Your task to perform on an android device: turn on showing notifications on the lock screen Image 0: 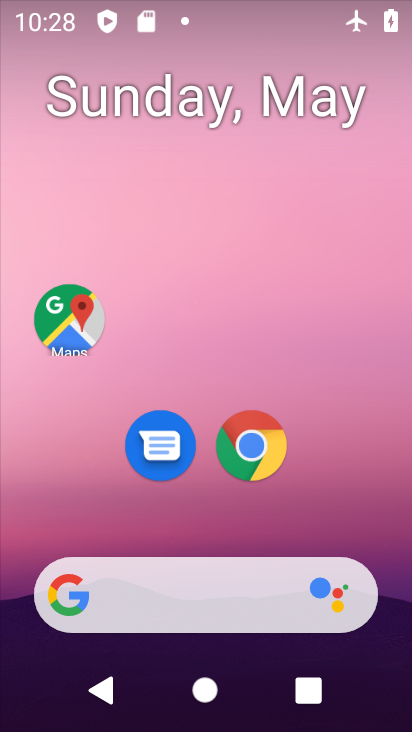
Step 0: drag from (184, 507) to (216, 200)
Your task to perform on an android device: turn on showing notifications on the lock screen Image 1: 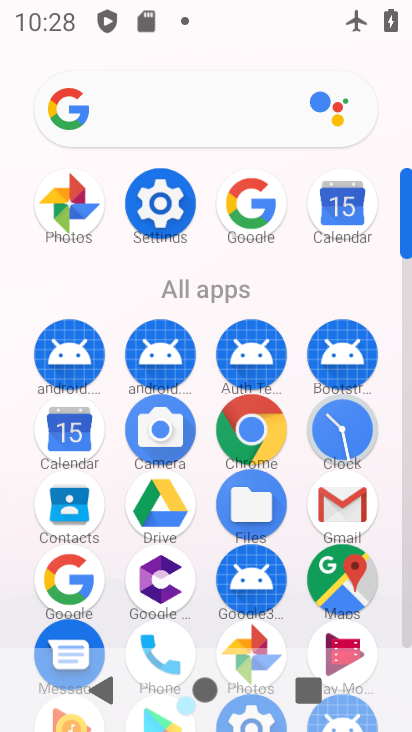
Step 1: click (158, 205)
Your task to perform on an android device: turn on showing notifications on the lock screen Image 2: 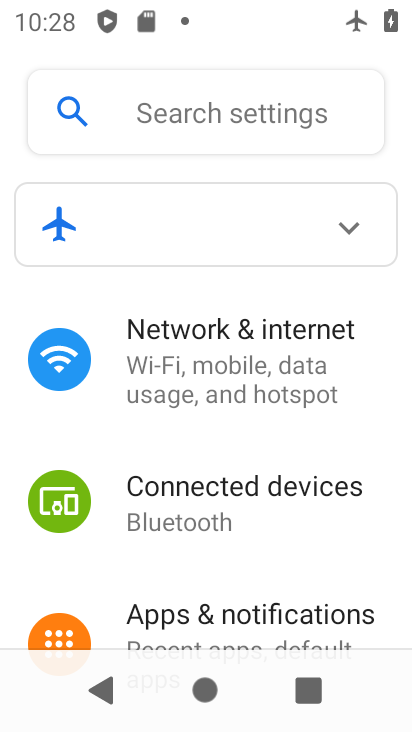
Step 2: click (244, 622)
Your task to perform on an android device: turn on showing notifications on the lock screen Image 3: 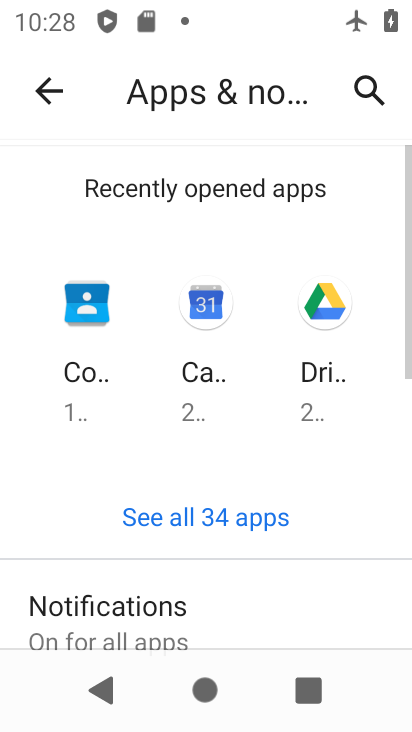
Step 3: drag from (244, 612) to (306, 255)
Your task to perform on an android device: turn on showing notifications on the lock screen Image 4: 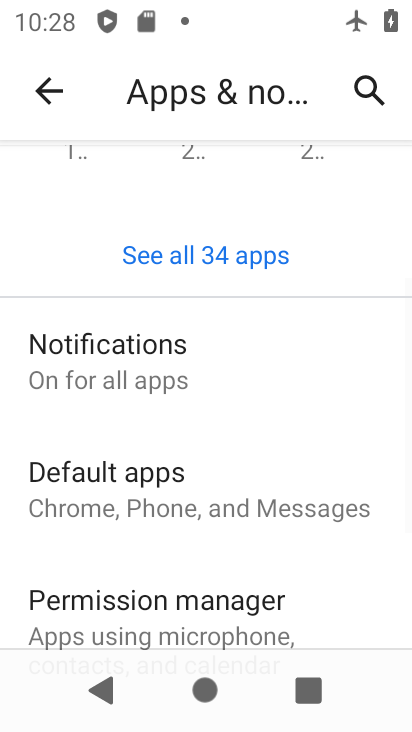
Step 4: drag from (233, 566) to (289, 265)
Your task to perform on an android device: turn on showing notifications on the lock screen Image 5: 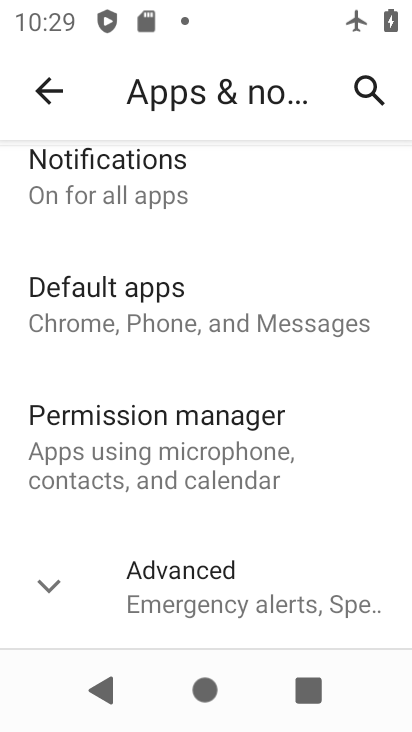
Step 5: click (110, 153)
Your task to perform on an android device: turn on showing notifications on the lock screen Image 6: 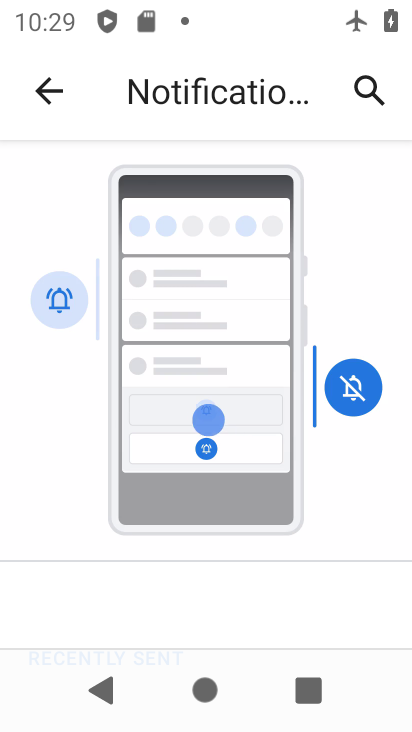
Step 6: drag from (190, 570) to (270, 252)
Your task to perform on an android device: turn on showing notifications on the lock screen Image 7: 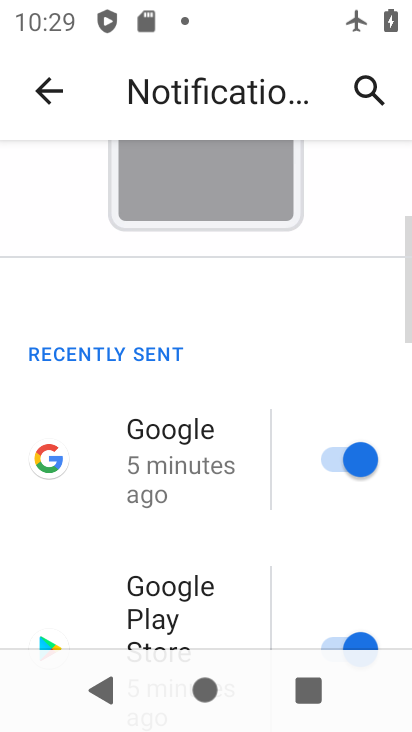
Step 7: drag from (242, 546) to (257, 260)
Your task to perform on an android device: turn on showing notifications on the lock screen Image 8: 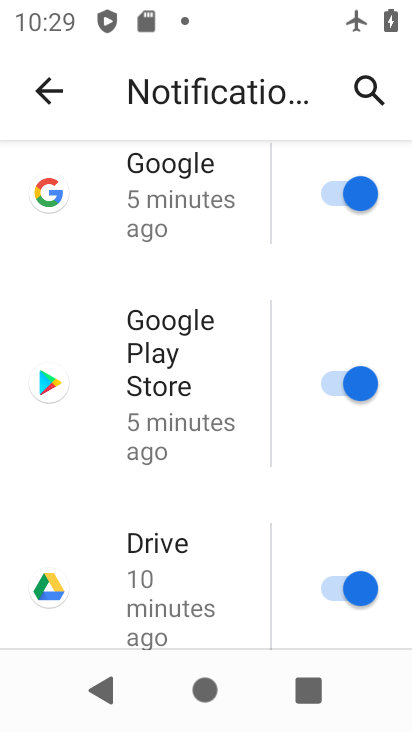
Step 8: drag from (244, 549) to (309, 222)
Your task to perform on an android device: turn on showing notifications on the lock screen Image 9: 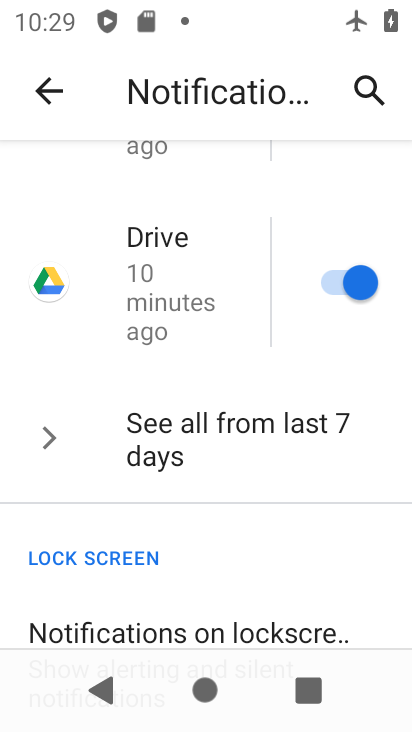
Step 9: drag from (233, 556) to (301, 285)
Your task to perform on an android device: turn on showing notifications on the lock screen Image 10: 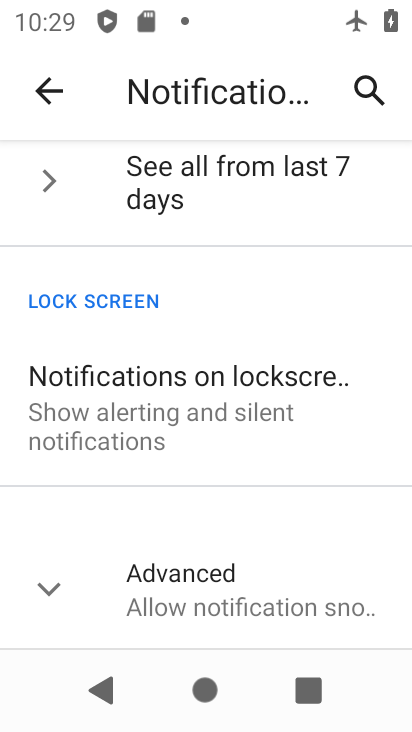
Step 10: click (154, 406)
Your task to perform on an android device: turn on showing notifications on the lock screen Image 11: 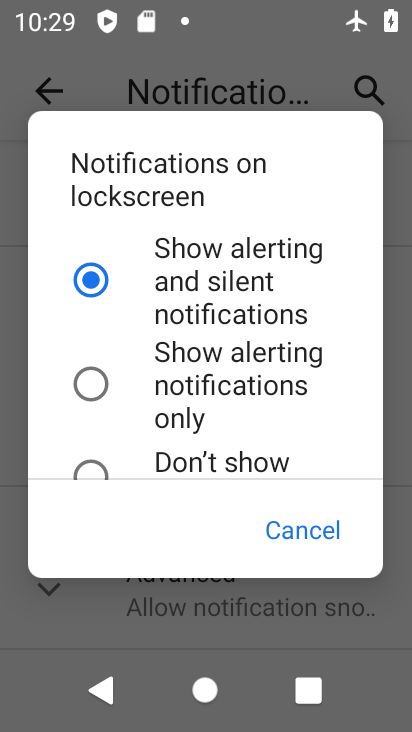
Step 11: task complete